Your task to perform on an android device: Open Google Chrome and click the shortcut for Amazon.com Image 0: 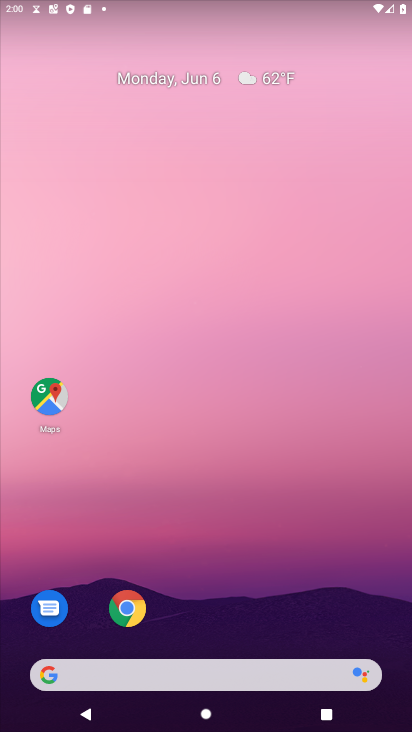
Step 0: drag from (353, 559) to (409, 18)
Your task to perform on an android device: Open Google Chrome and click the shortcut for Amazon.com Image 1: 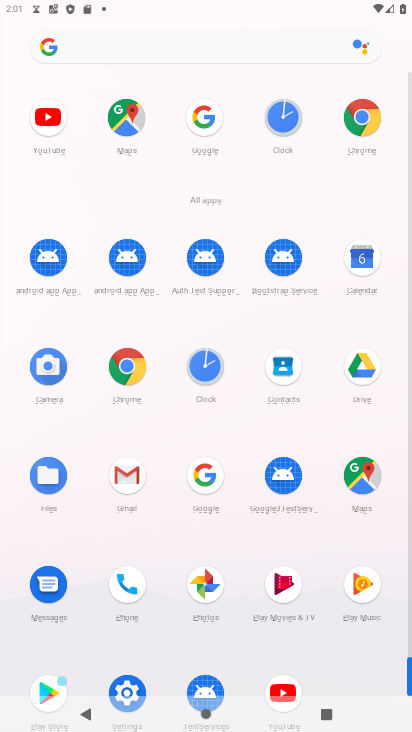
Step 1: click (365, 114)
Your task to perform on an android device: Open Google Chrome and click the shortcut for Amazon.com Image 2: 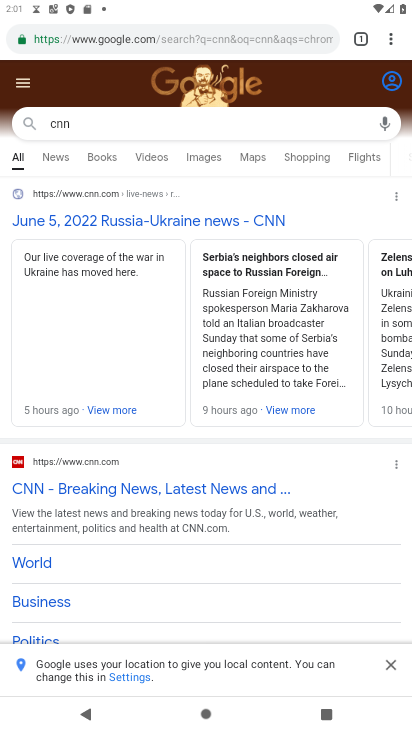
Step 2: click (183, 34)
Your task to perform on an android device: Open Google Chrome and click the shortcut for Amazon.com Image 3: 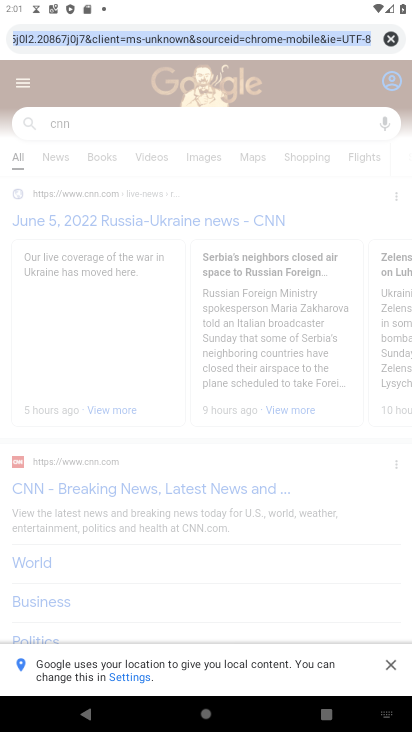
Step 3: click (392, 35)
Your task to perform on an android device: Open Google Chrome and click the shortcut for Amazon.com Image 4: 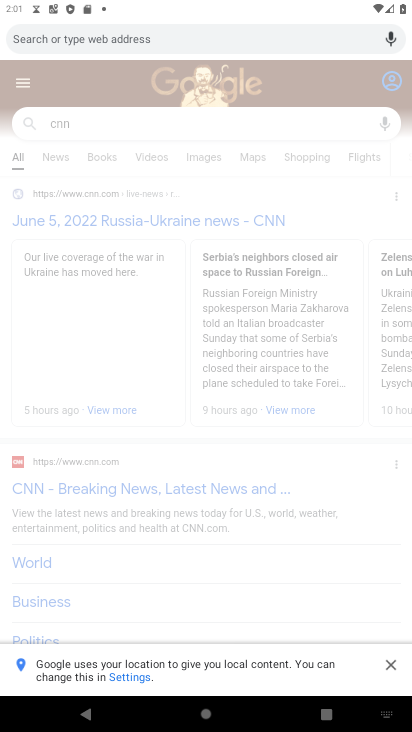
Step 4: type "amazon"
Your task to perform on an android device: Open Google Chrome and click the shortcut for Amazon.com Image 5: 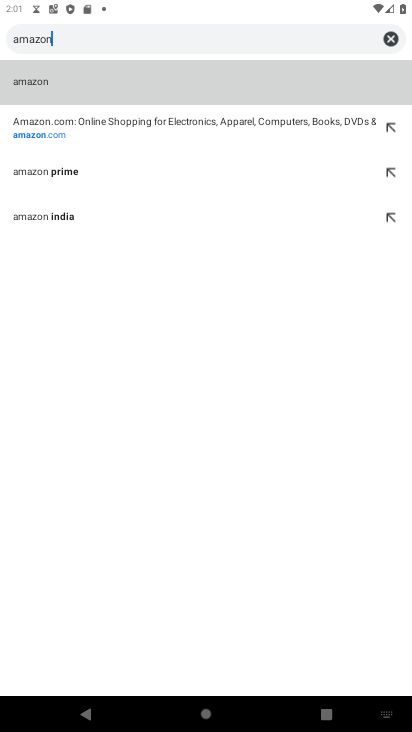
Step 5: click (72, 131)
Your task to perform on an android device: Open Google Chrome and click the shortcut for Amazon.com Image 6: 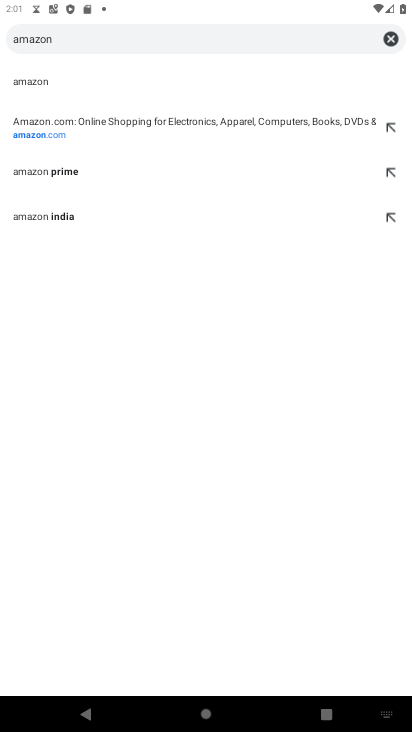
Step 6: click (65, 133)
Your task to perform on an android device: Open Google Chrome and click the shortcut for Amazon.com Image 7: 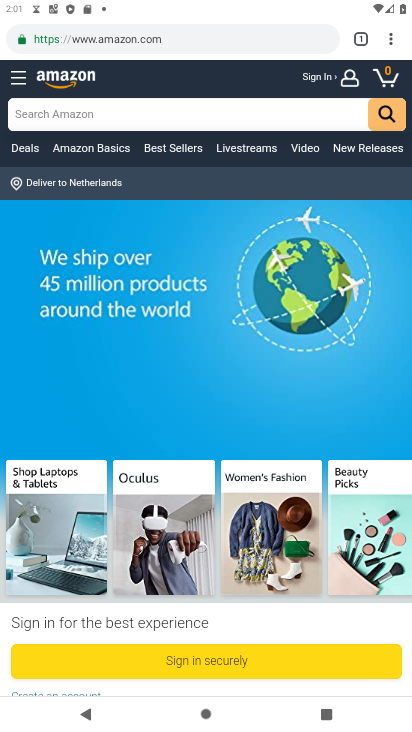
Step 7: drag from (392, 41) to (242, 412)
Your task to perform on an android device: Open Google Chrome and click the shortcut for Amazon.com Image 8: 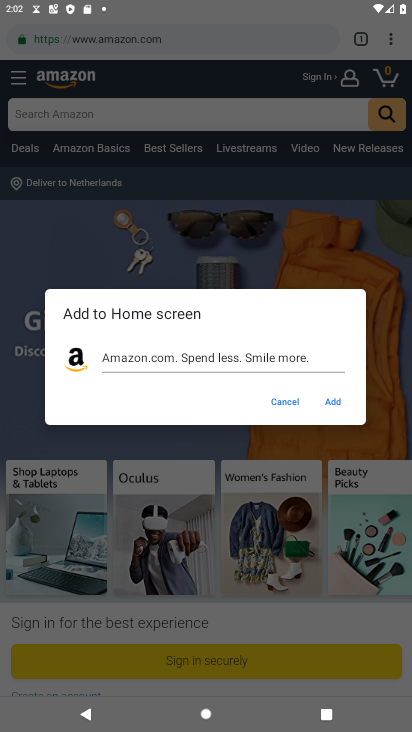
Step 8: click (329, 394)
Your task to perform on an android device: Open Google Chrome and click the shortcut for Amazon.com Image 9: 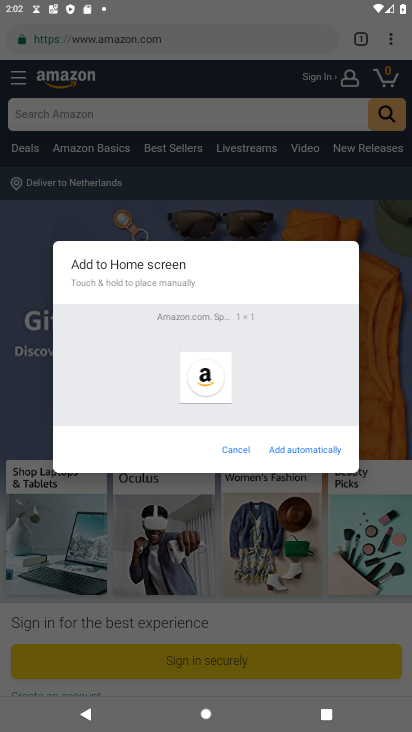
Step 9: click (309, 446)
Your task to perform on an android device: Open Google Chrome and click the shortcut for Amazon.com Image 10: 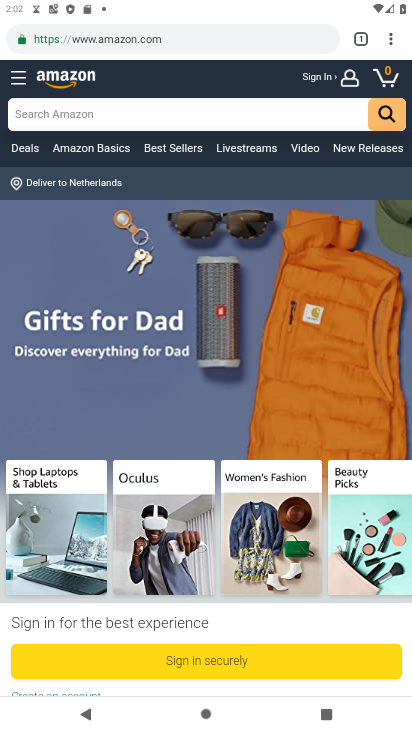
Step 10: task complete